Your task to perform on an android device: Play the last video I watched on Youtube Image 0: 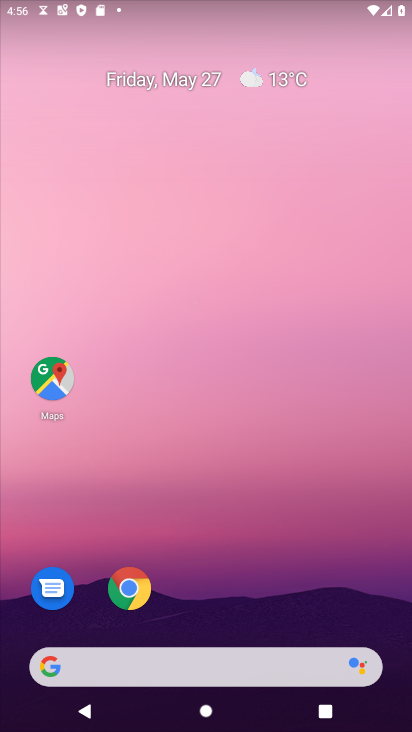
Step 0: drag from (263, 584) to (295, 75)
Your task to perform on an android device: Play the last video I watched on Youtube Image 1: 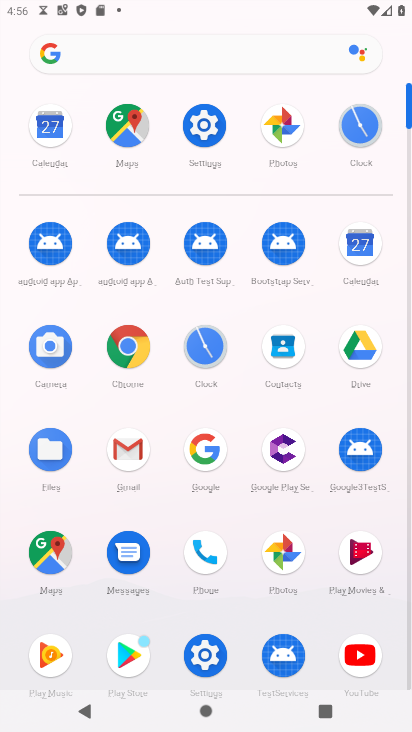
Step 1: click (352, 662)
Your task to perform on an android device: Play the last video I watched on Youtube Image 2: 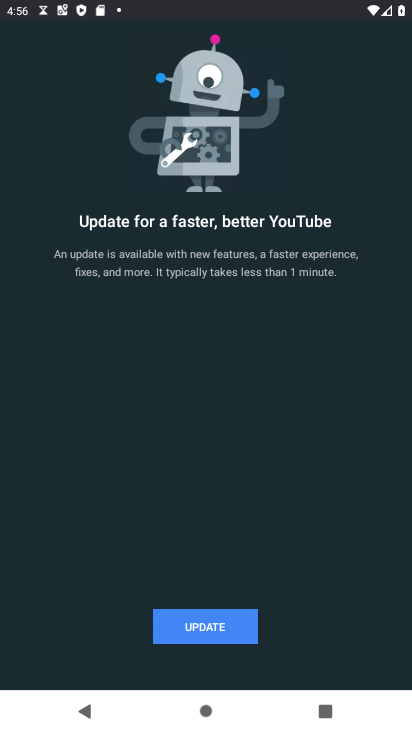
Step 2: click (215, 631)
Your task to perform on an android device: Play the last video I watched on Youtube Image 3: 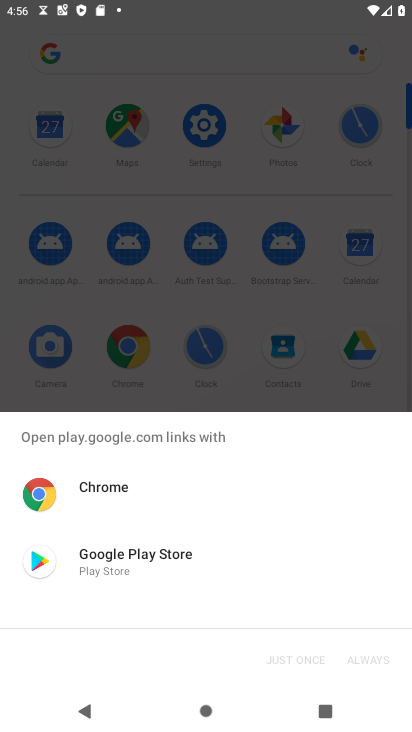
Step 3: click (148, 546)
Your task to perform on an android device: Play the last video I watched on Youtube Image 4: 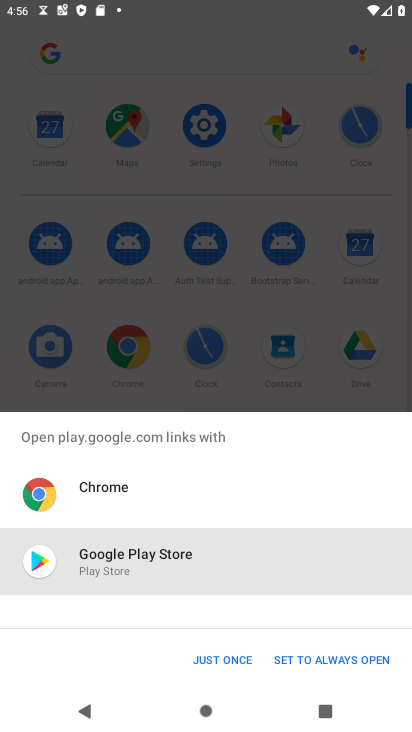
Step 4: click (198, 649)
Your task to perform on an android device: Play the last video I watched on Youtube Image 5: 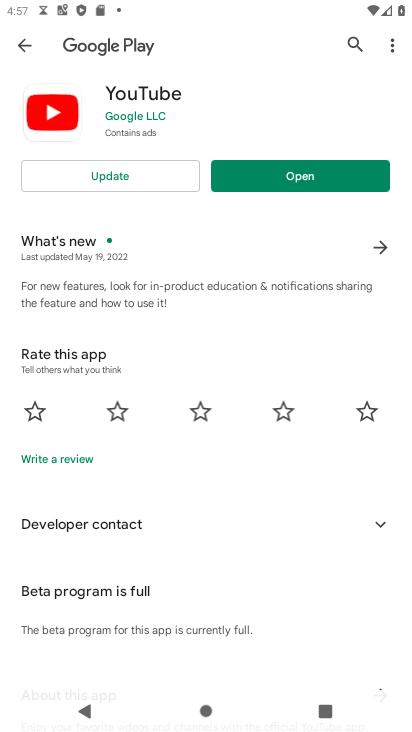
Step 5: click (123, 185)
Your task to perform on an android device: Play the last video I watched on Youtube Image 6: 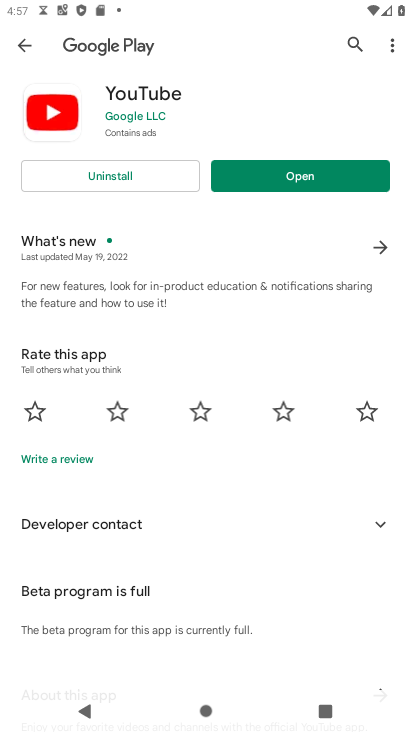
Step 6: click (231, 173)
Your task to perform on an android device: Play the last video I watched on Youtube Image 7: 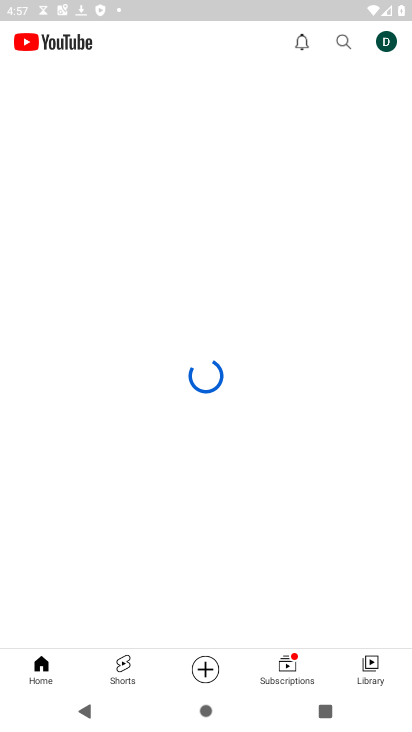
Step 7: click (368, 667)
Your task to perform on an android device: Play the last video I watched on Youtube Image 8: 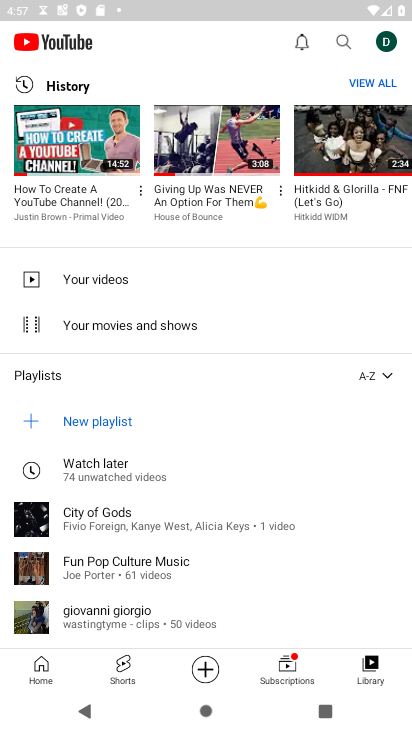
Step 8: click (71, 125)
Your task to perform on an android device: Play the last video I watched on Youtube Image 9: 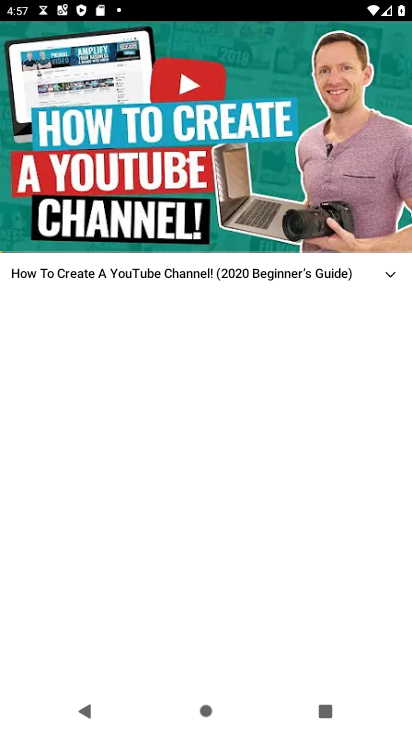
Step 9: task complete